Your task to perform on an android device: turn vacation reply on in the gmail app Image 0: 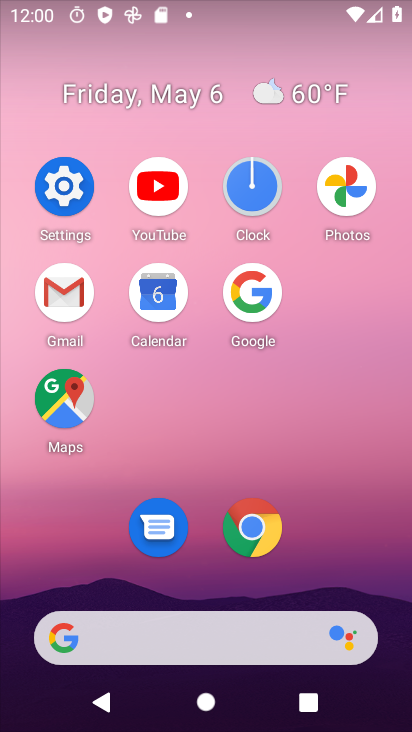
Step 0: click (65, 294)
Your task to perform on an android device: turn vacation reply on in the gmail app Image 1: 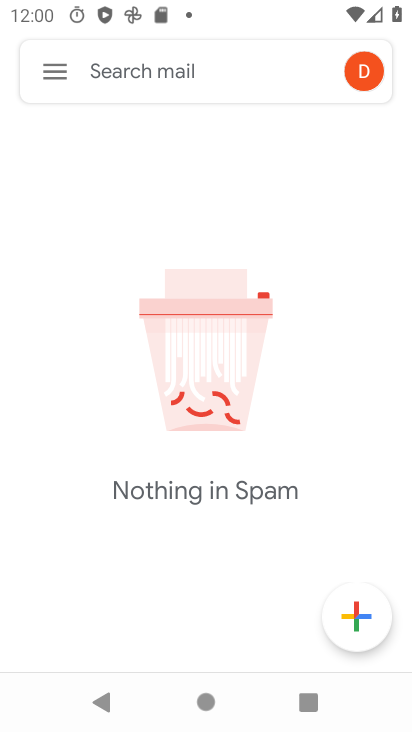
Step 1: click (41, 78)
Your task to perform on an android device: turn vacation reply on in the gmail app Image 2: 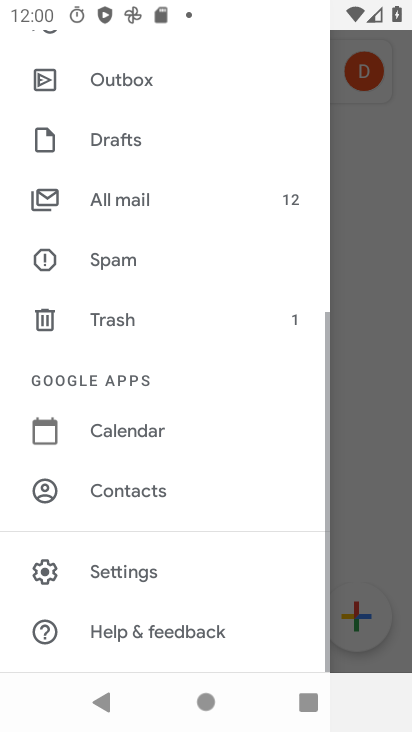
Step 2: click (174, 595)
Your task to perform on an android device: turn vacation reply on in the gmail app Image 3: 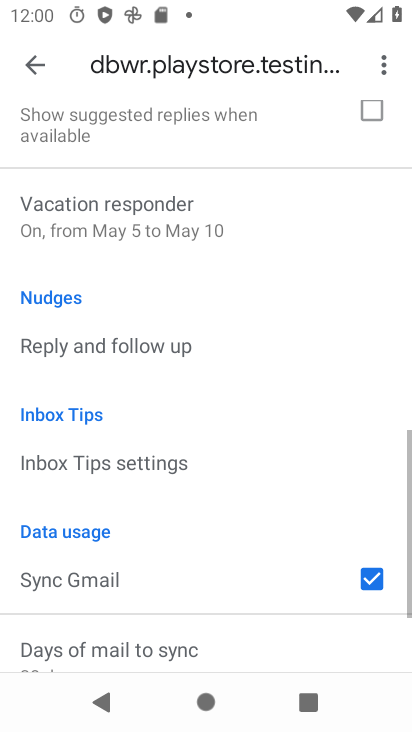
Step 3: drag from (177, 595) to (200, 61)
Your task to perform on an android device: turn vacation reply on in the gmail app Image 4: 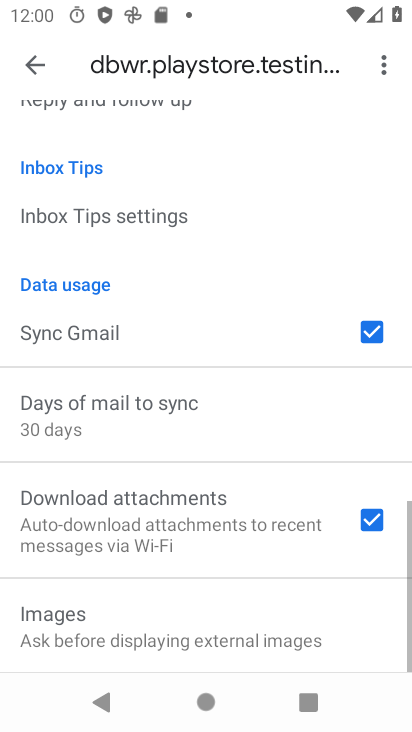
Step 4: drag from (219, 535) to (239, 80)
Your task to perform on an android device: turn vacation reply on in the gmail app Image 5: 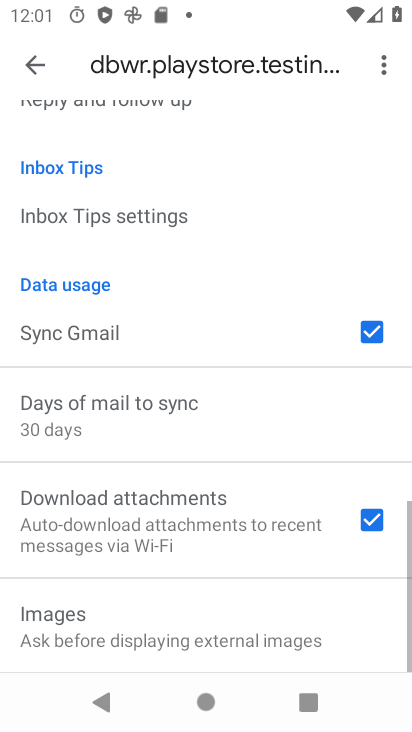
Step 5: drag from (229, 242) to (231, 578)
Your task to perform on an android device: turn vacation reply on in the gmail app Image 6: 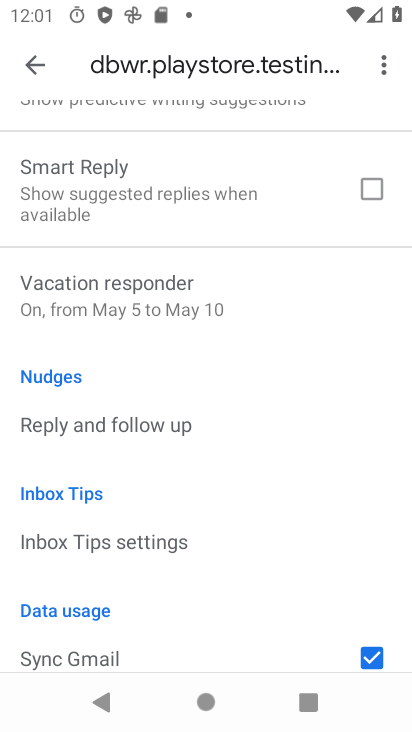
Step 6: click (209, 312)
Your task to perform on an android device: turn vacation reply on in the gmail app Image 7: 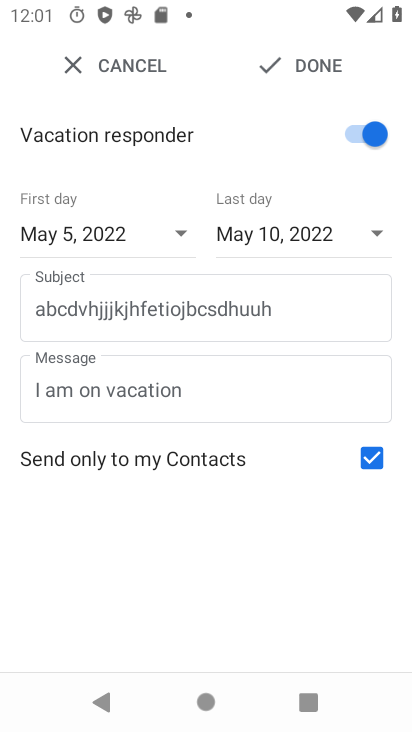
Step 7: task complete